Your task to perform on an android device: turn on airplane mode Image 0: 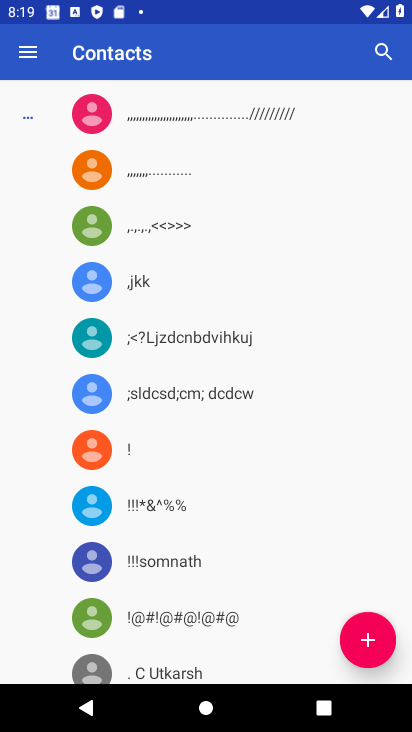
Step 0: press home button
Your task to perform on an android device: turn on airplane mode Image 1: 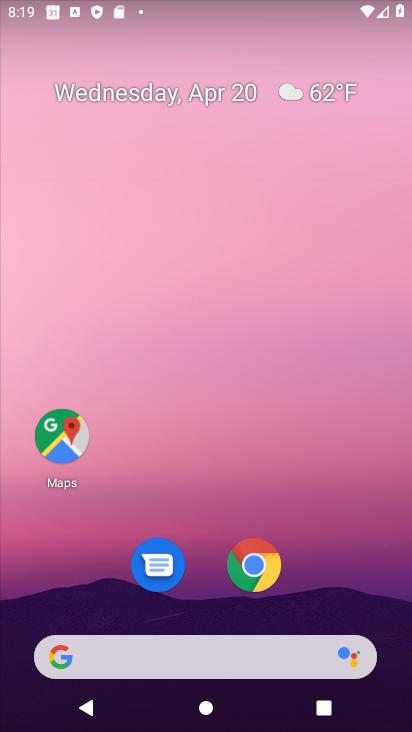
Step 1: drag from (357, 571) to (285, 72)
Your task to perform on an android device: turn on airplane mode Image 2: 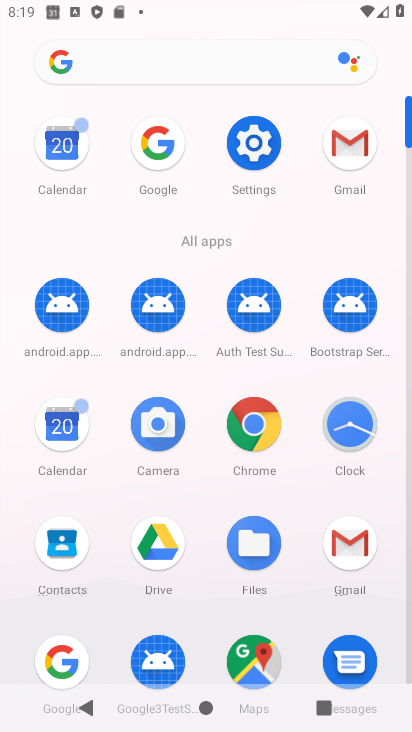
Step 2: click (260, 147)
Your task to perform on an android device: turn on airplane mode Image 3: 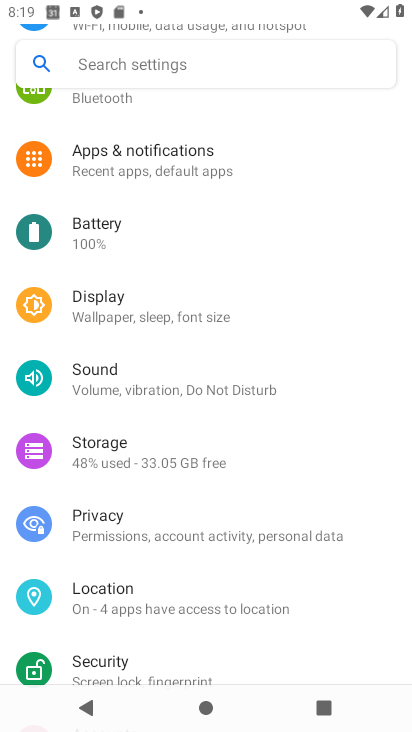
Step 3: drag from (151, 191) to (160, 505)
Your task to perform on an android device: turn on airplane mode Image 4: 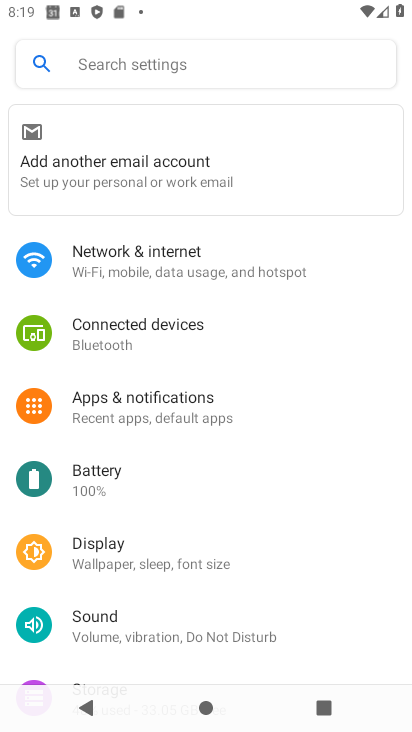
Step 4: click (117, 258)
Your task to perform on an android device: turn on airplane mode Image 5: 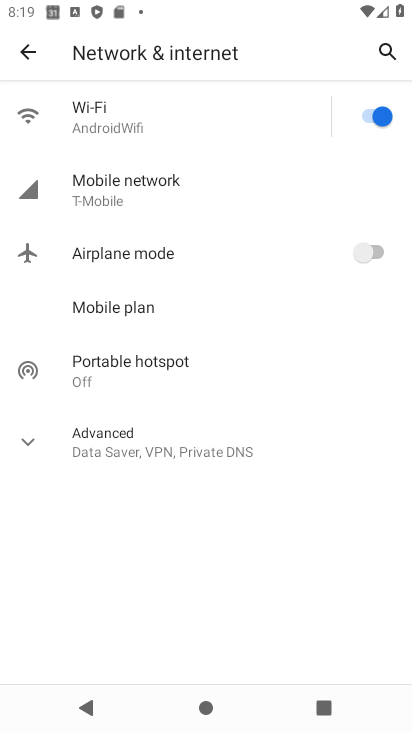
Step 5: click (377, 254)
Your task to perform on an android device: turn on airplane mode Image 6: 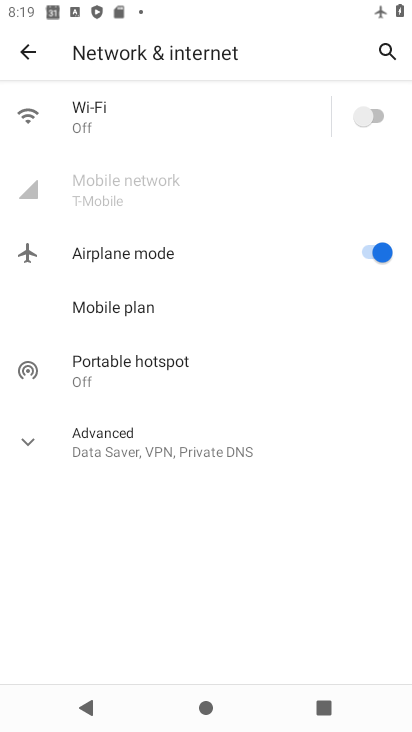
Step 6: task complete